Your task to perform on an android device: change timer sound Image 0: 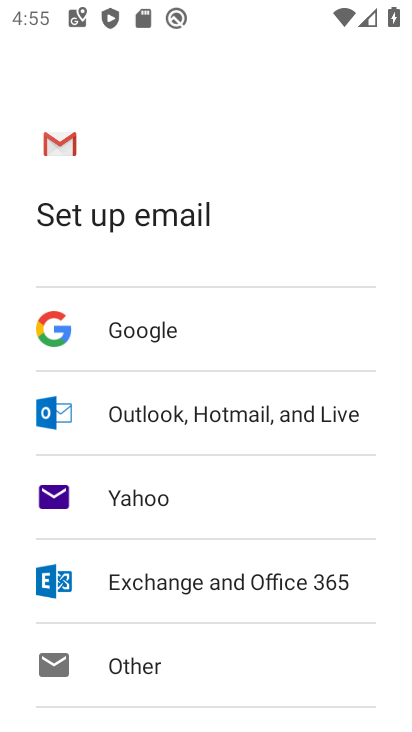
Step 0: press home button
Your task to perform on an android device: change timer sound Image 1: 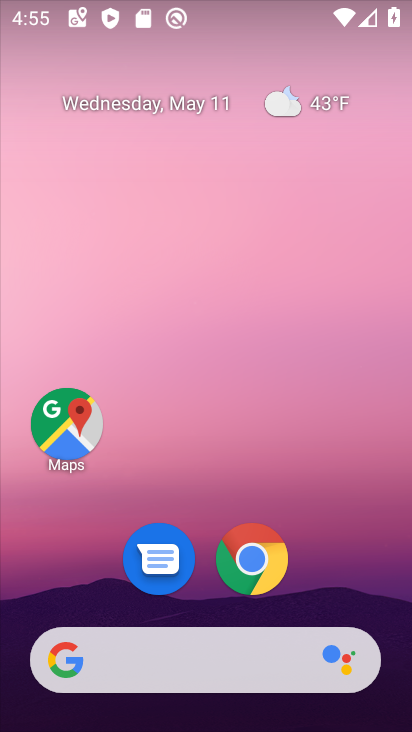
Step 1: drag from (331, 601) to (321, 59)
Your task to perform on an android device: change timer sound Image 2: 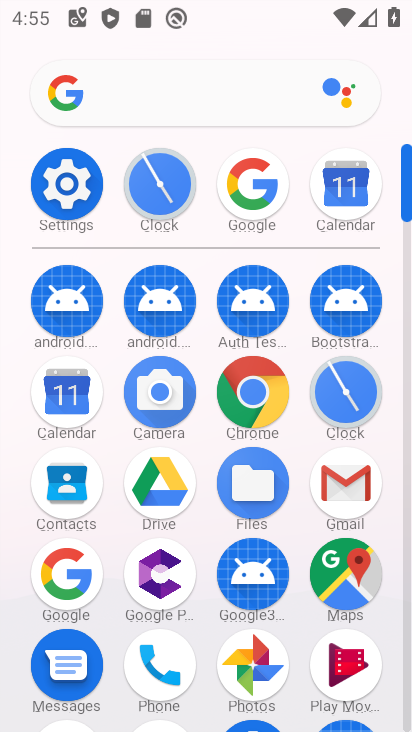
Step 2: click (346, 429)
Your task to perform on an android device: change timer sound Image 3: 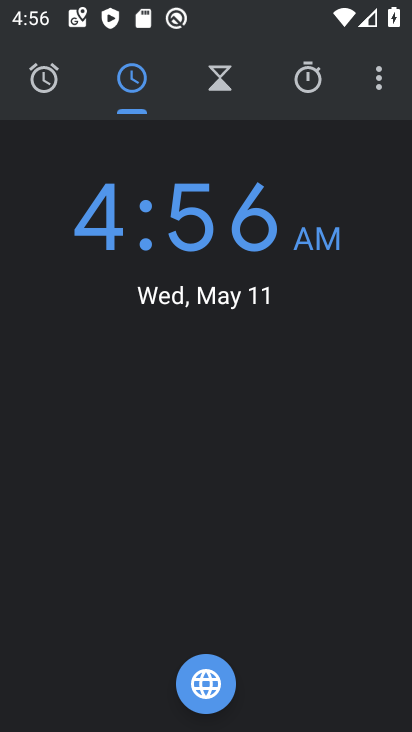
Step 3: click (378, 83)
Your task to perform on an android device: change timer sound Image 4: 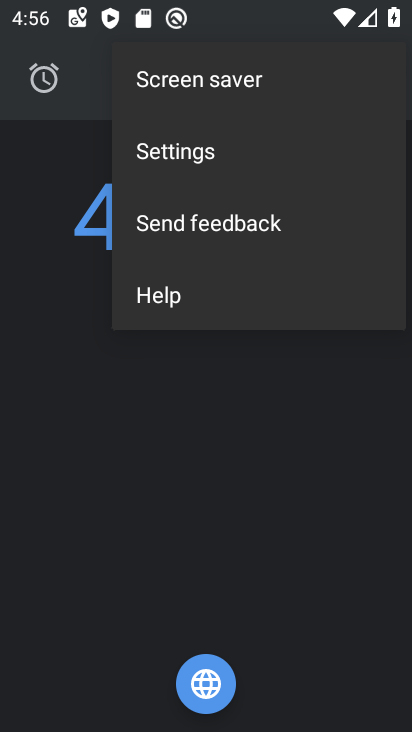
Step 4: click (240, 164)
Your task to perform on an android device: change timer sound Image 5: 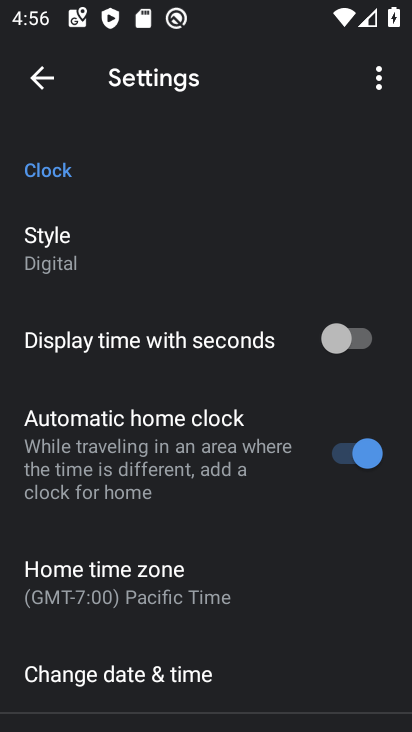
Step 5: drag from (197, 616) to (205, 296)
Your task to perform on an android device: change timer sound Image 6: 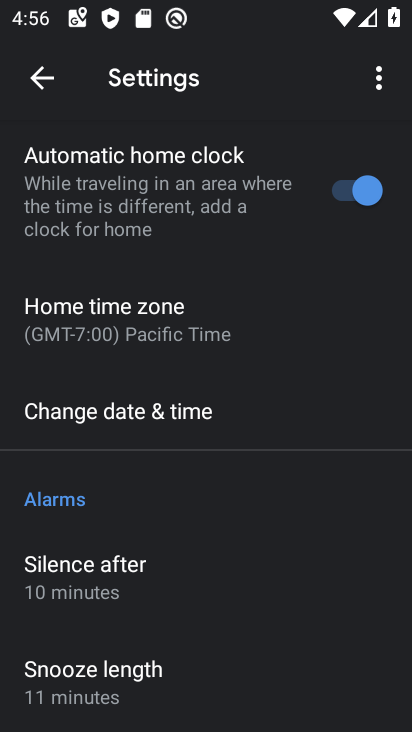
Step 6: drag from (189, 662) to (273, 359)
Your task to perform on an android device: change timer sound Image 7: 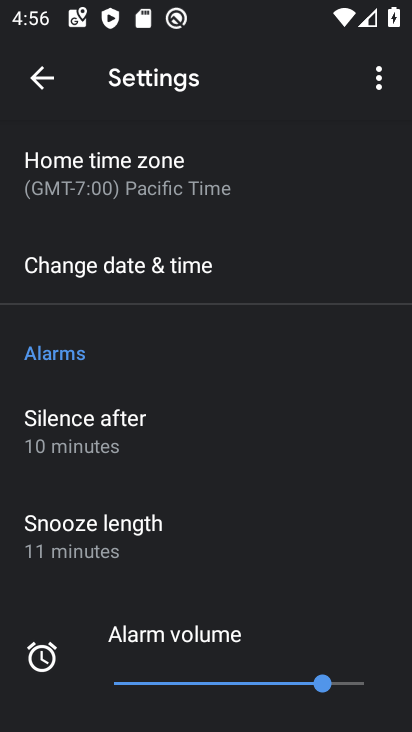
Step 7: drag from (225, 629) to (222, 336)
Your task to perform on an android device: change timer sound Image 8: 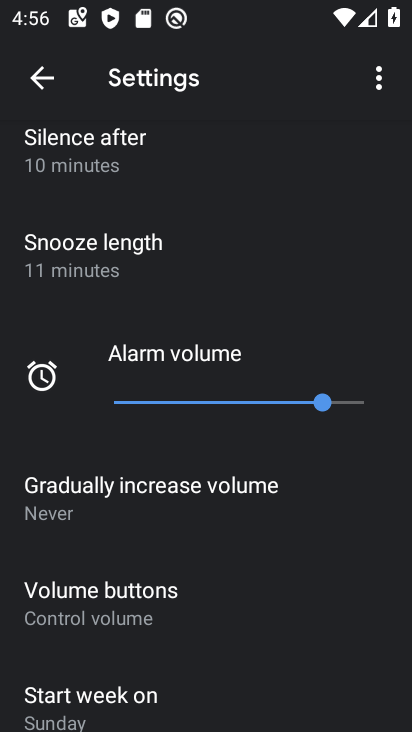
Step 8: drag from (205, 580) to (210, 271)
Your task to perform on an android device: change timer sound Image 9: 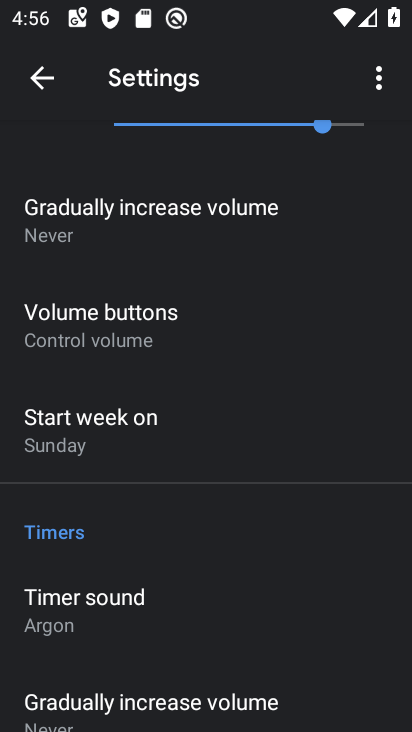
Step 9: drag from (197, 515) to (207, 272)
Your task to perform on an android device: change timer sound Image 10: 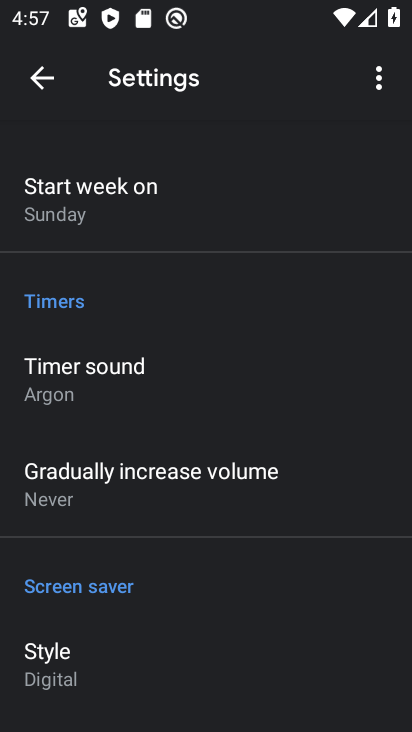
Step 10: click (90, 381)
Your task to perform on an android device: change timer sound Image 11: 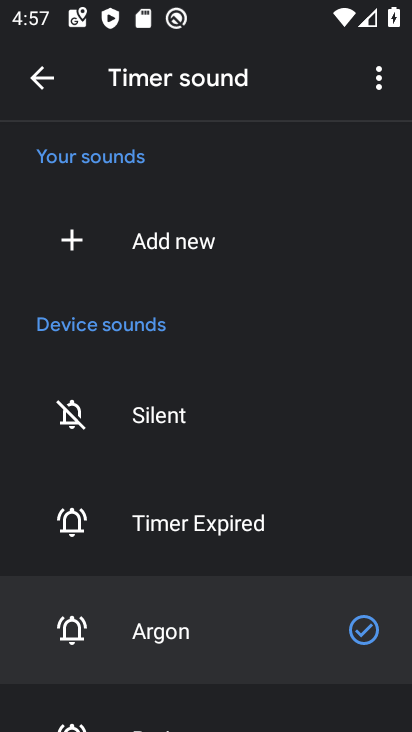
Step 11: click (105, 529)
Your task to perform on an android device: change timer sound Image 12: 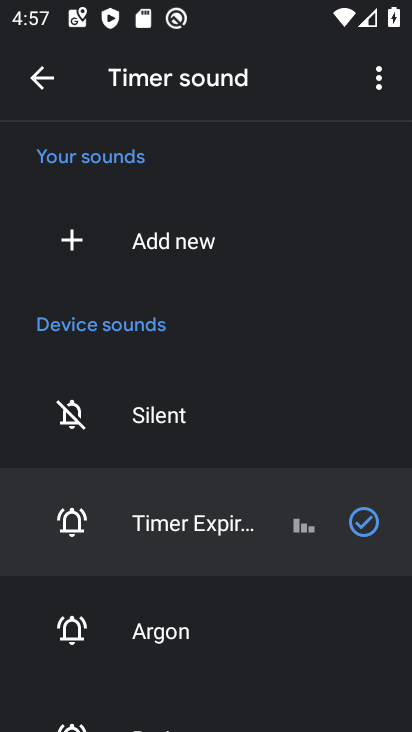
Step 12: task complete